Your task to perform on an android device: Go to CNN.com Image 0: 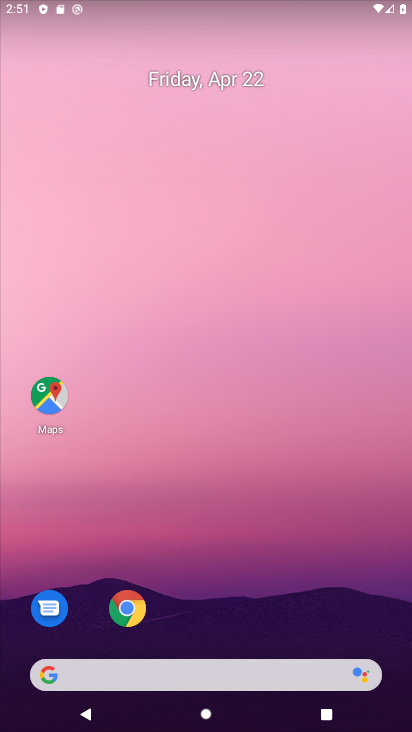
Step 0: click (130, 603)
Your task to perform on an android device: Go to CNN.com Image 1: 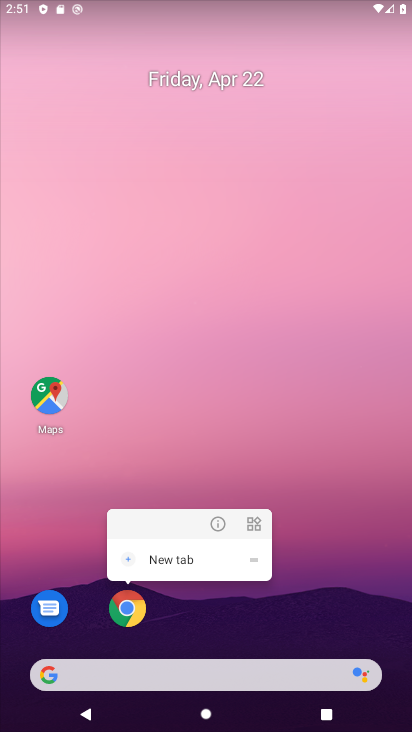
Step 1: click (130, 614)
Your task to perform on an android device: Go to CNN.com Image 2: 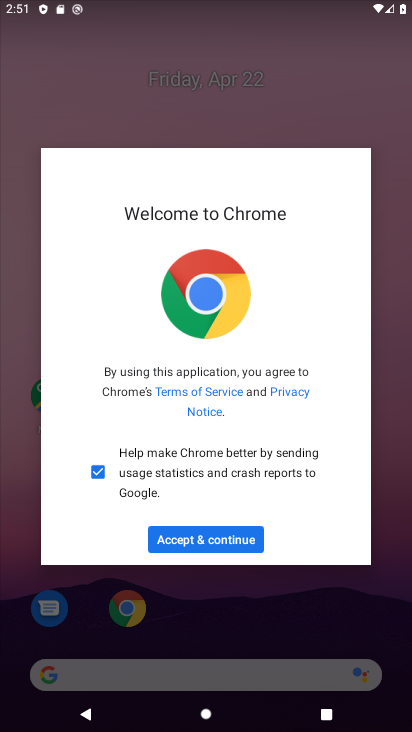
Step 2: click (217, 535)
Your task to perform on an android device: Go to CNN.com Image 3: 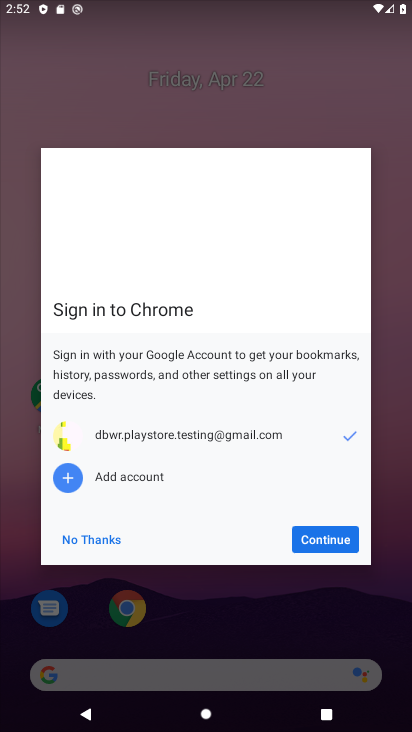
Step 3: click (319, 536)
Your task to perform on an android device: Go to CNN.com Image 4: 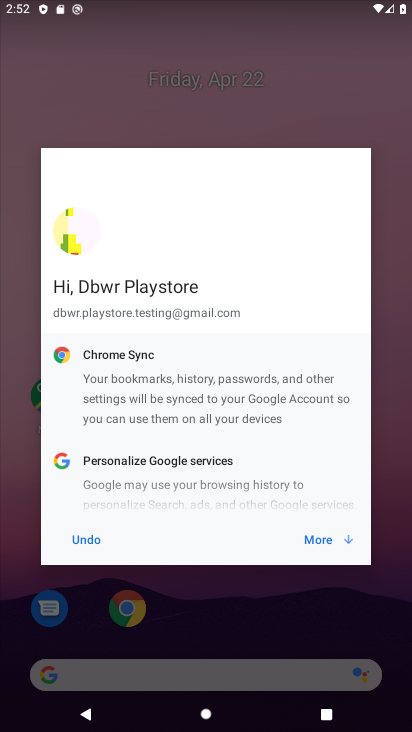
Step 4: click (319, 536)
Your task to perform on an android device: Go to CNN.com Image 5: 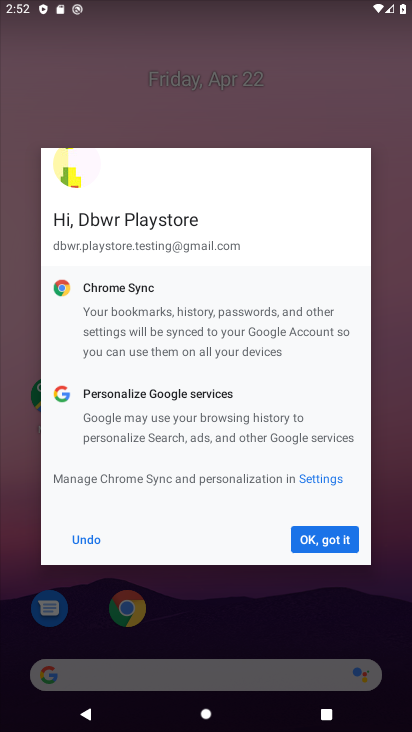
Step 5: click (315, 541)
Your task to perform on an android device: Go to CNN.com Image 6: 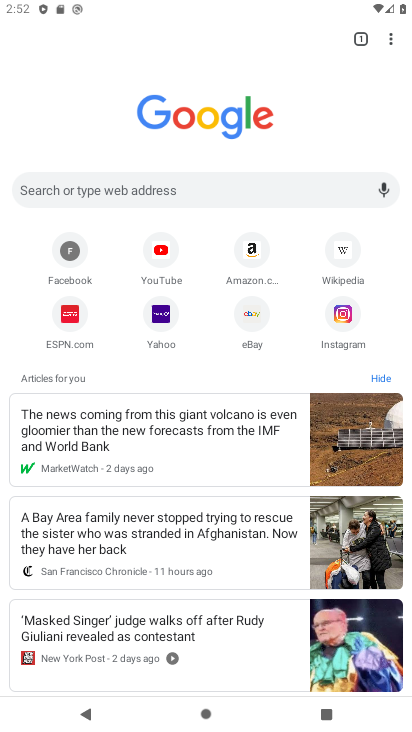
Step 6: click (214, 179)
Your task to perform on an android device: Go to CNN.com Image 7: 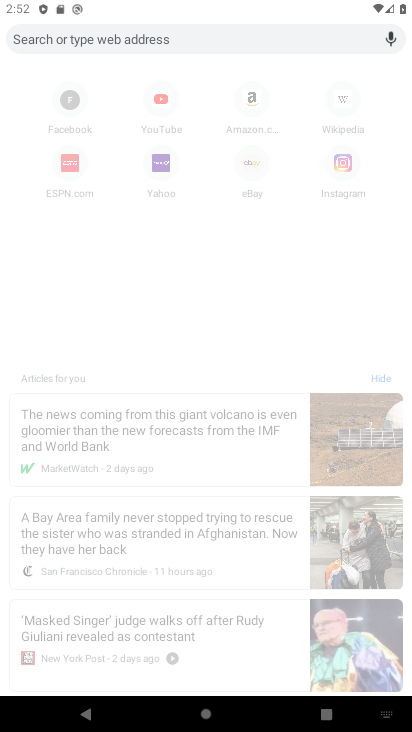
Step 7: type "cnn.com"
Your task to perform on an android device: Go to CNN.com Image 8: 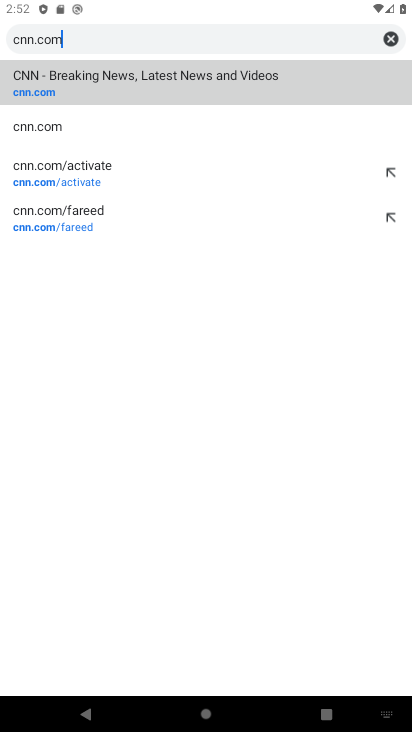
Step 8: click (83, 66)
Your task to perform on an android device: Go to CNN.com Image 9: 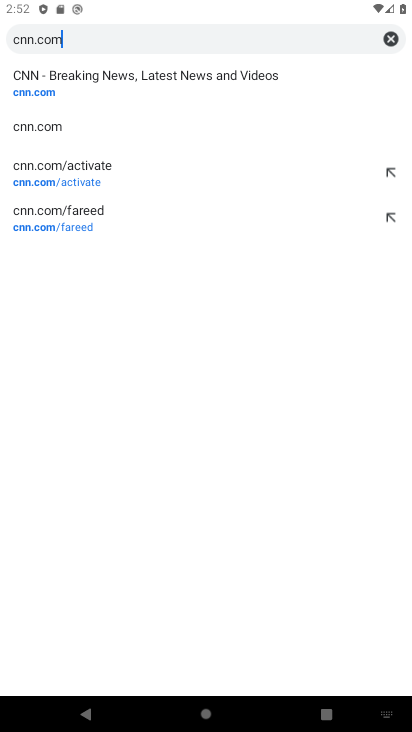
Step 9: click (33, 60)
Your task to perform on an android device: Go to CNN.com Image 10: 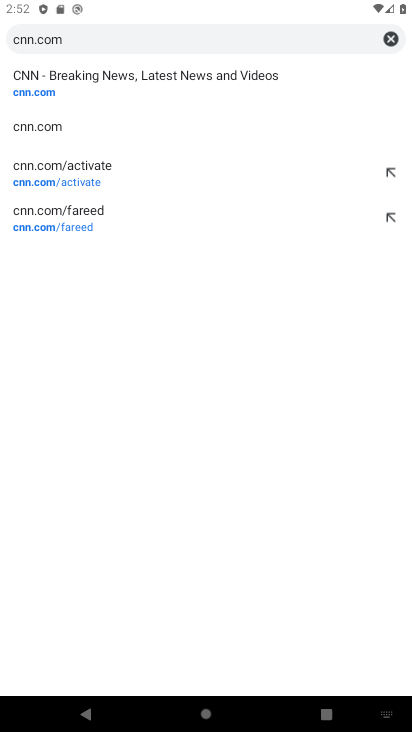
Step 10: click (72, 79)
Your task to perform on an android device: Go to CNN.com Image 11: 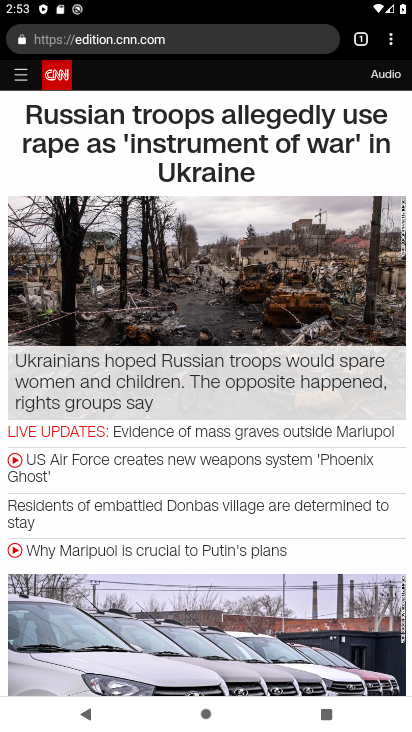
Step 11: task complete